Your task to perform on an android device: choose inbox layout in the gmail app Image 0: 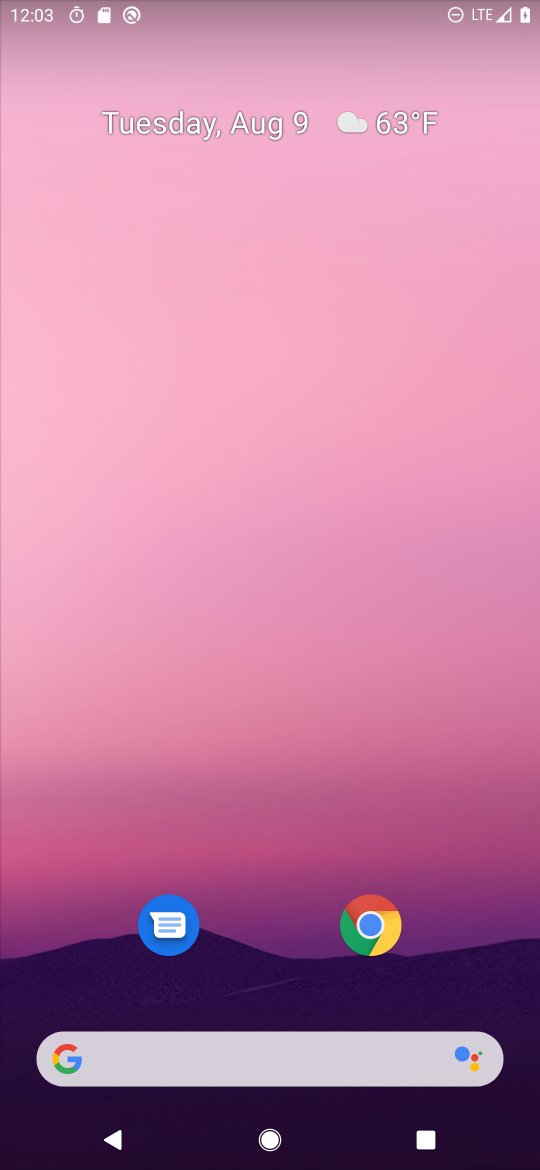
Step 0: drag from (270, 986) to (238, 96)
Your task to perform on an android device: choose inbox layout in the gmail app Image 1: 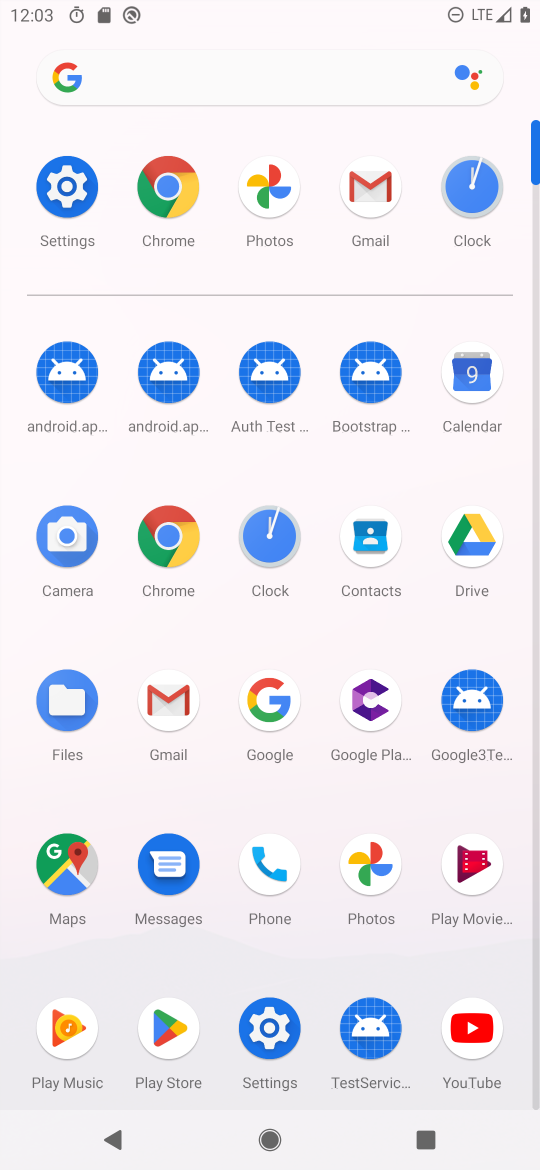
Step 1: click (164, 702)
Your task to perform on an android device: choose inbox layout in the gmail app Image 2: 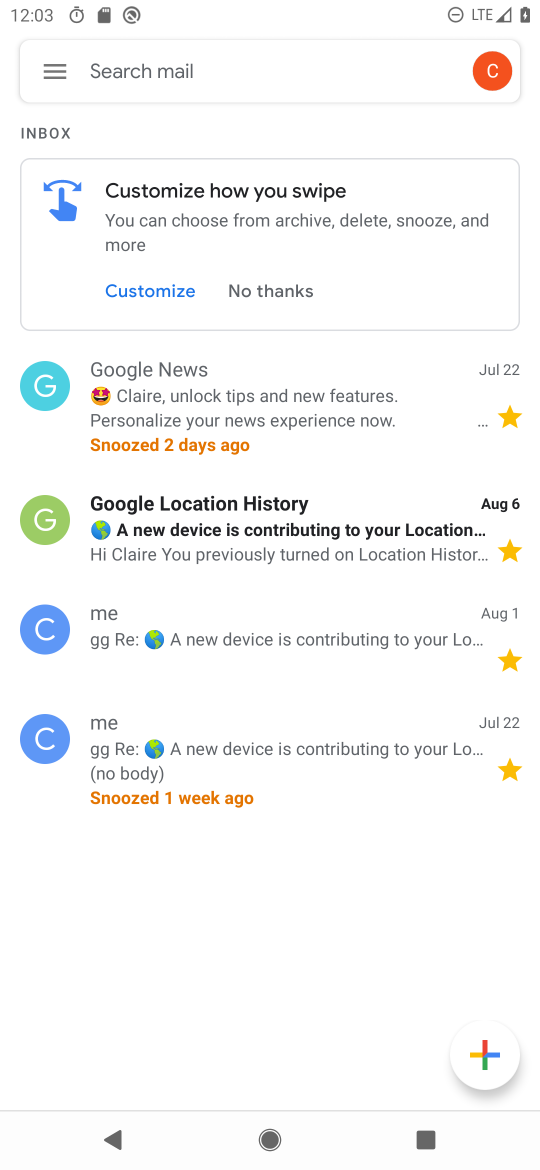
Step 2: click (44, 74)
Your task to perform on an android device: choose inbox layout in the gmail app Image 3: 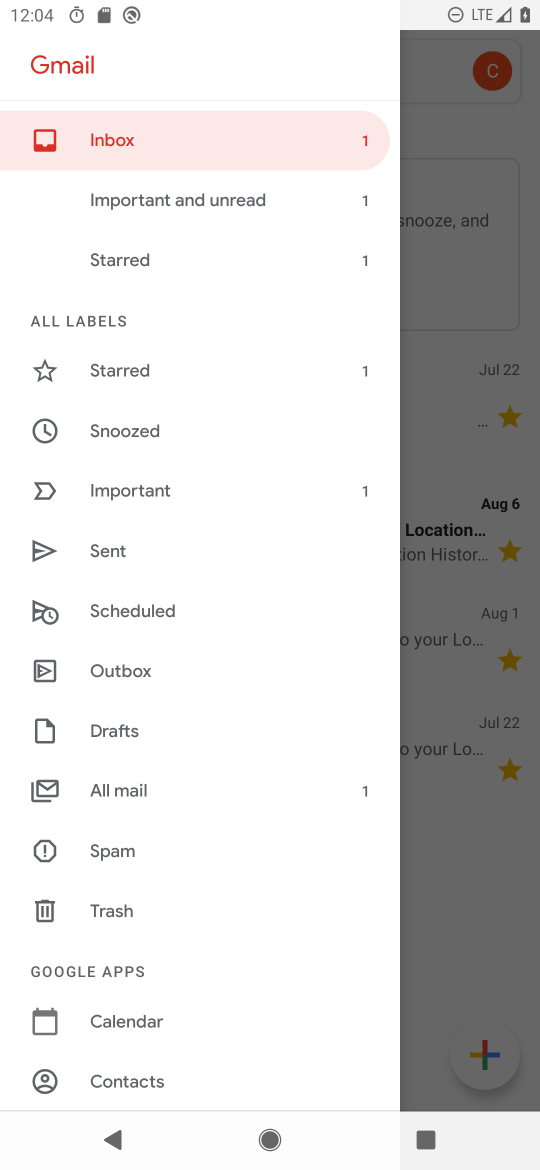
Step 3: drag from (145, 943) to (148, 517)
Your task to perform on an android device: choose inbox layout in the gmail app Image 4: 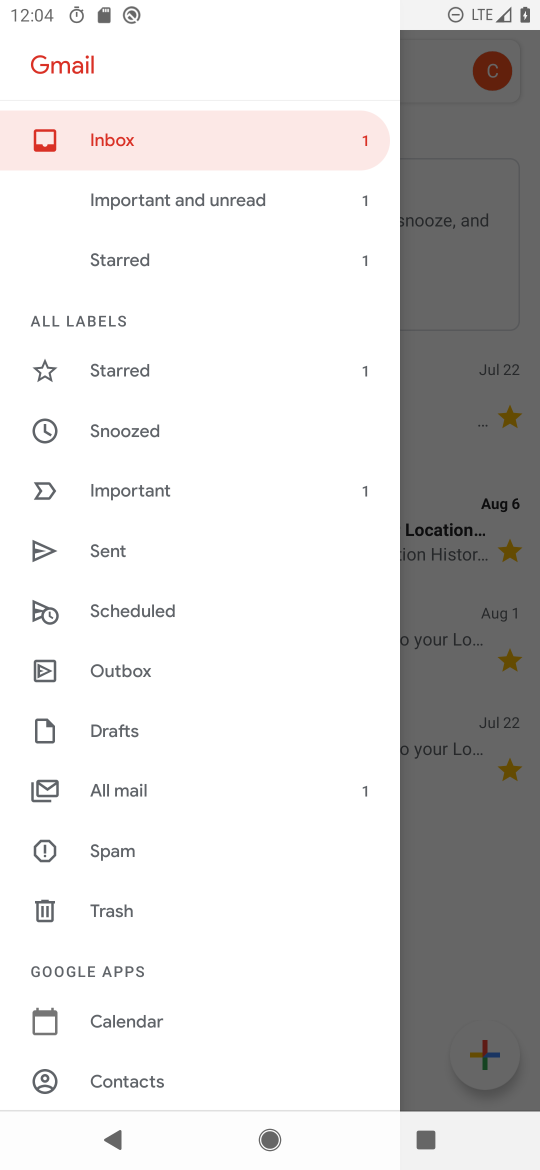
Step 4: drag from (55, 1000) to (138, 578)
Your task to perform on an android device: choose inbox layout in the gmail app Image 5: 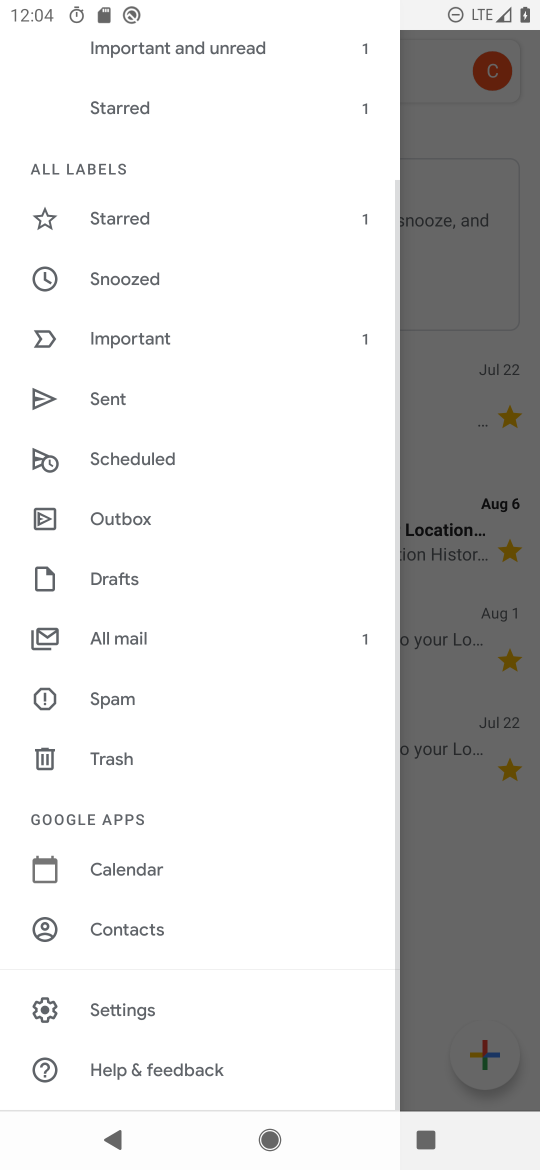
Step 5: click (90, 1007)
Your task to perform on an android device: choose inbox layout in the gmail app Image 6: 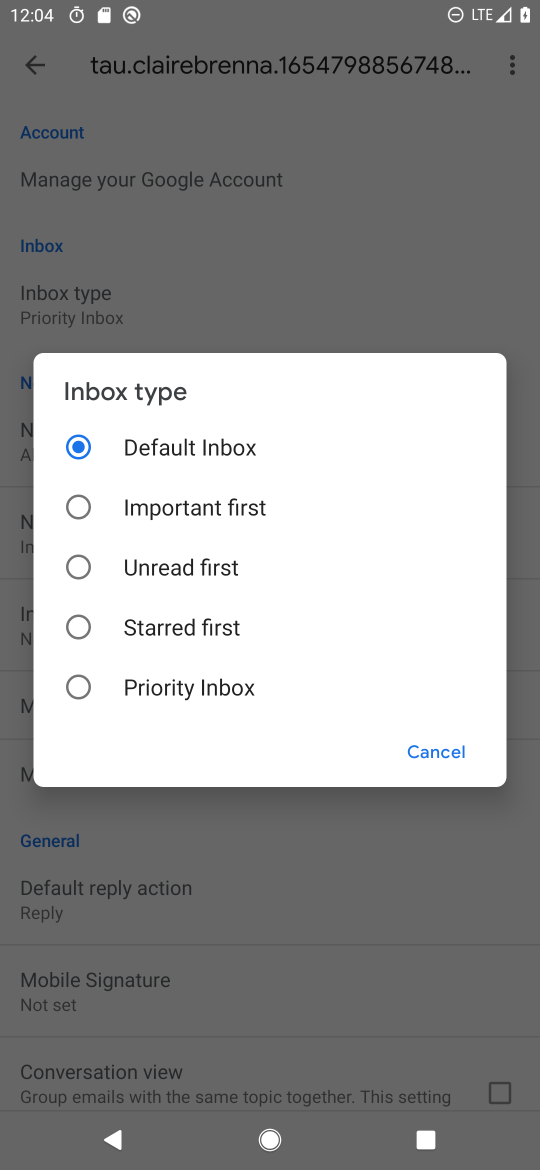
Step 6: task complete